Your task to perform on an android device: open a bookmark in the chrome app Image 0: 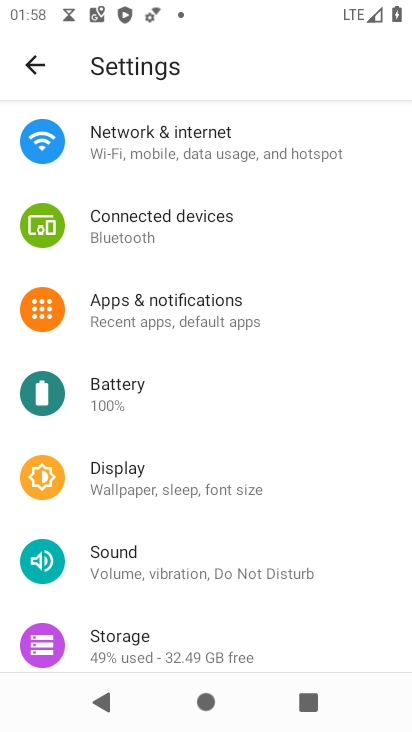
Step 0: press home button
Your task to perform on an android device: open a bookmark in the chrome app Image 1: 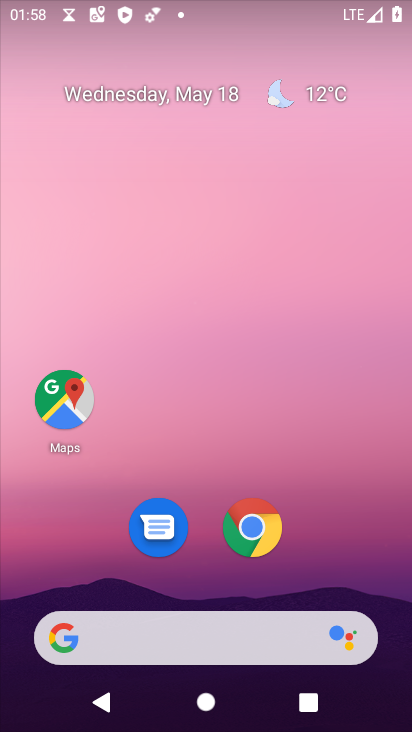
Step 1: click (223, 525)
Your task to perform on an android device: open a bookmark in the chrome app Image 2: 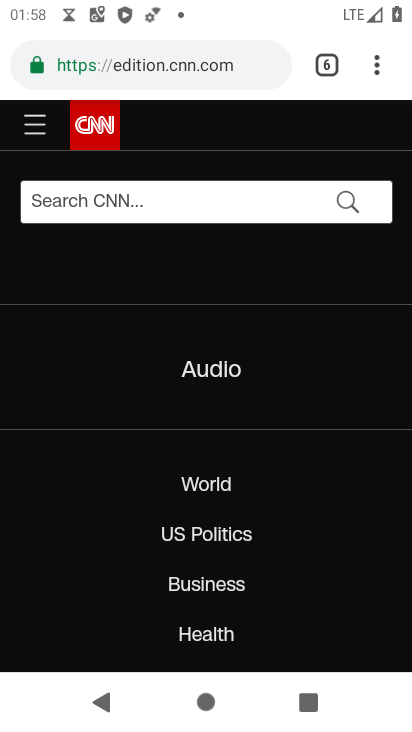
Step 2: click (383, 71)
Your task to perform on an android device: open a bookmark in the chrome app Image 3: 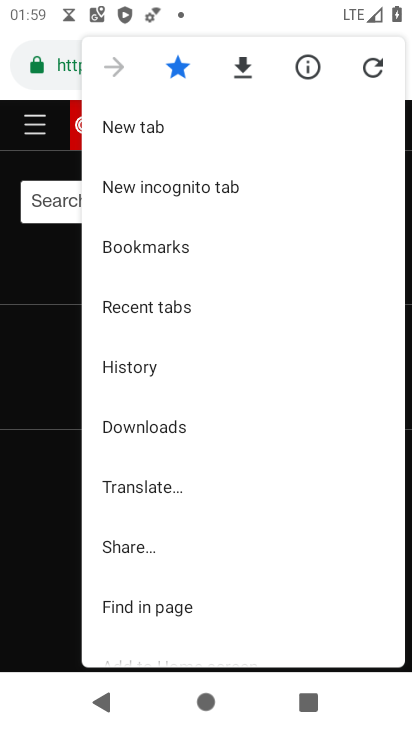
Step 3: click (220, 243)
Your task to perform on an android device: open a bookmark in the chrome app Image 4: 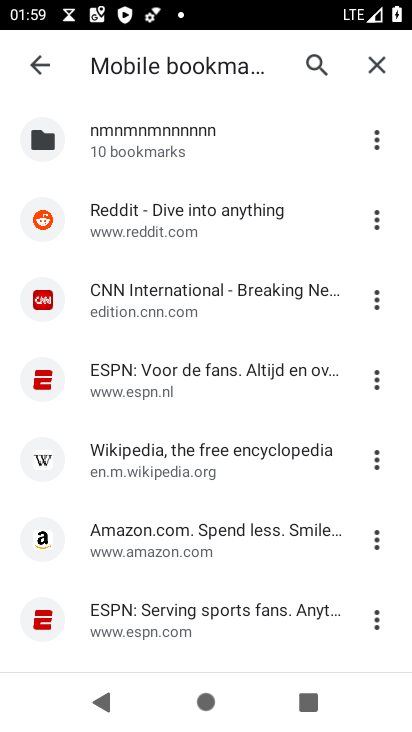
Step 4: click (163, 291)
Your task to perform on an android device: open a bookmark in the chrome app Image 5: 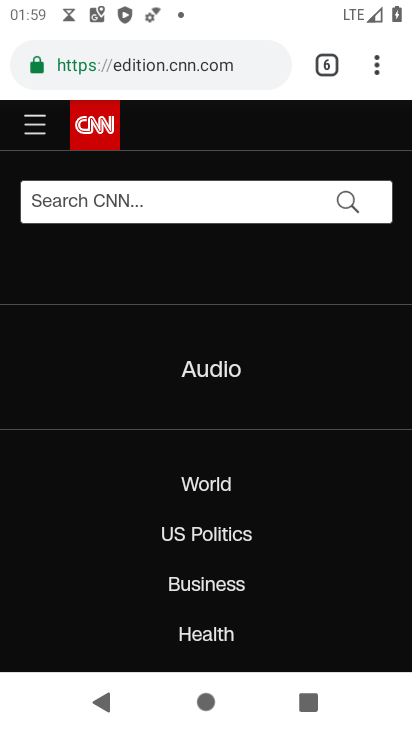
Step 5: task complete